Your task to perform on an android device: open chrome privacy settings Image 0: 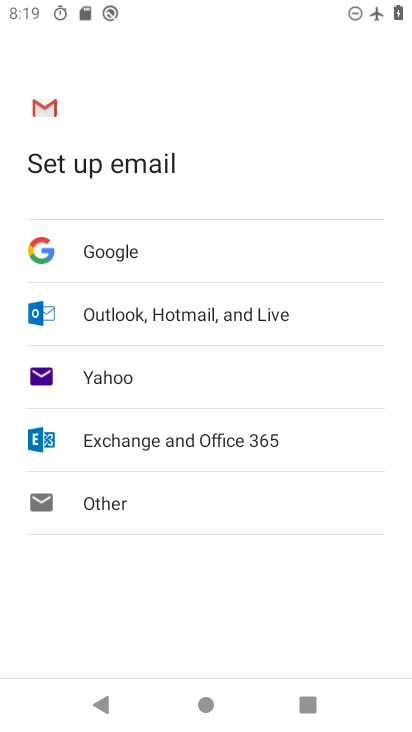
Step 0: press home button
Your task to perform on an android device: open chrome privacy settings Image 1: 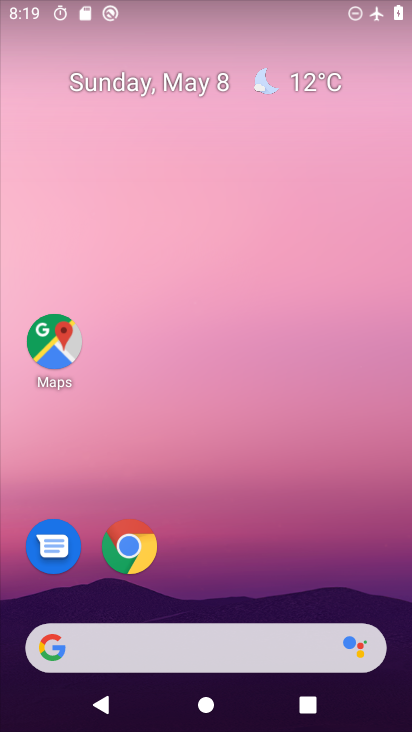
Step 1: click (140, 549)
Your task to perform on an android device: open chrome privacy settings Image 2: 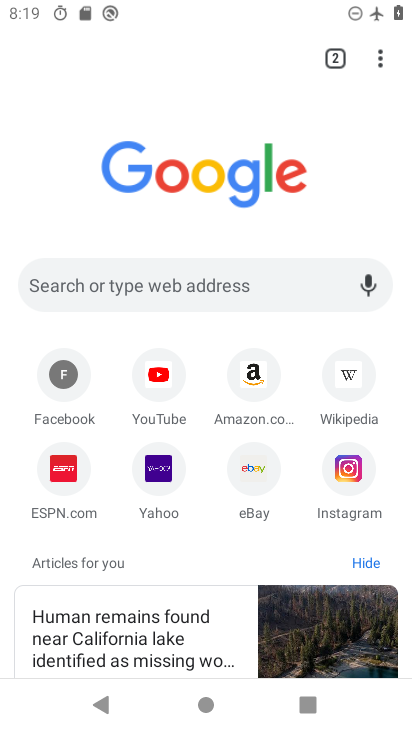
Step 2: click (376, 53)
Your task to perform on an android device: open chrome privacy settings Image 3: 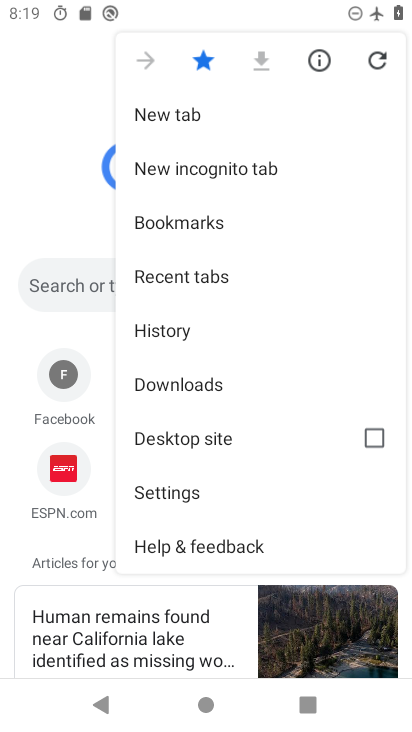
Step 3: click (188, 482)
Your task to perform on an android device: open chrome privacy settings Image 4: 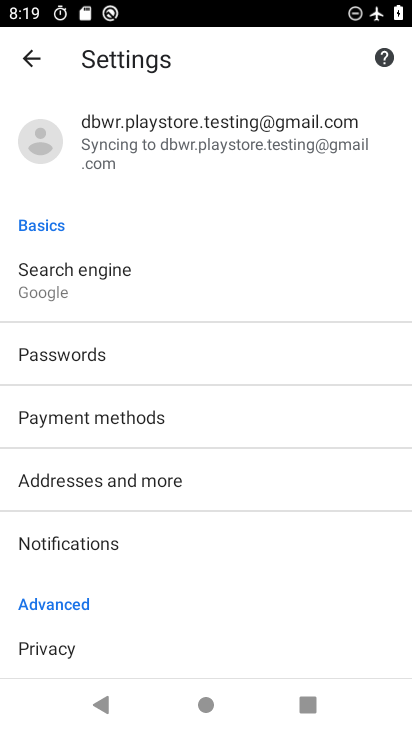
Step 4: click (72, 648)
Your task to perform on an android device: open chrome privacy settings Image 5: 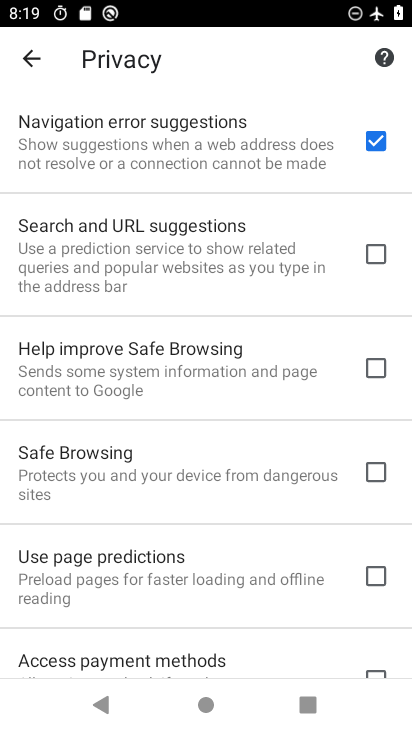
Step 5: task complete